Your task to perform on an android device: clear all cookies in the chrome app Image 0: 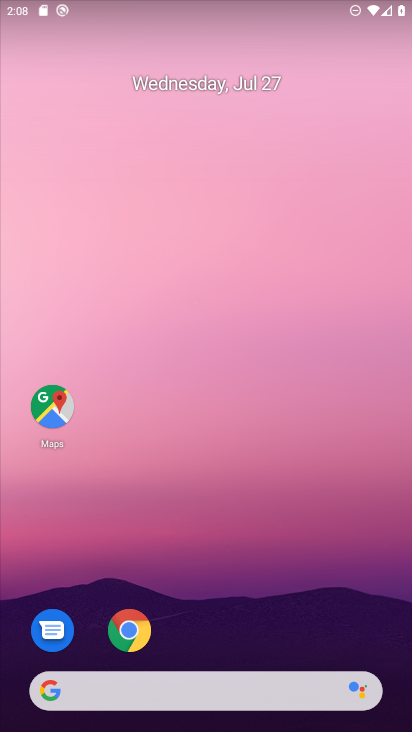
Step 0: click (129, 632)
Your task to perform on an android device: clear all cookies in the chrome app Image 1: 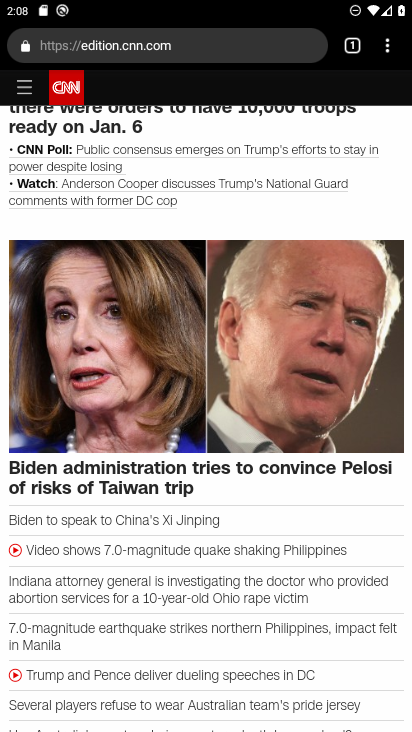
Step 1: click (386, 54)
Your task to perform on an android device: clear all cookies in the chrome app Image 2: 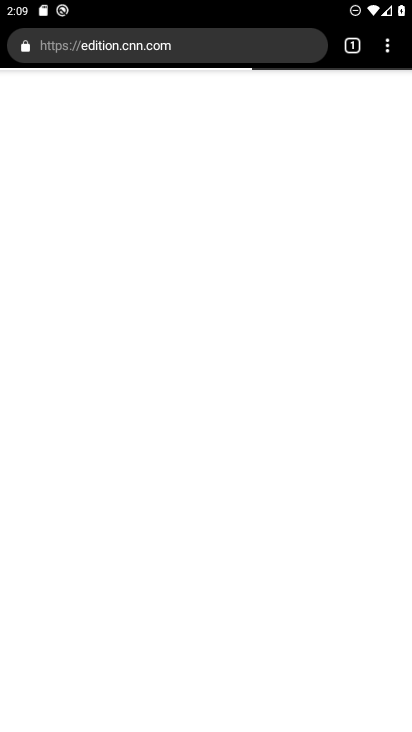
Step 2: click (388, 55)
Your task to perform on an android device: clear all cookies in the chrome app Image 3: 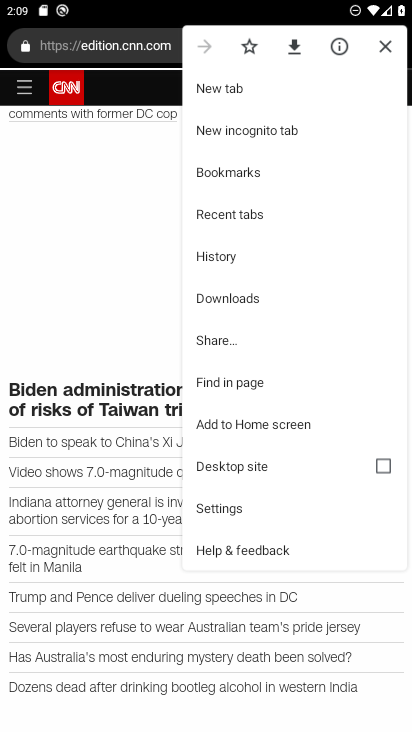
Step 3: click (220, 255)
Your task to perform on an android device: clear all cookies in the chrome app Image 4: 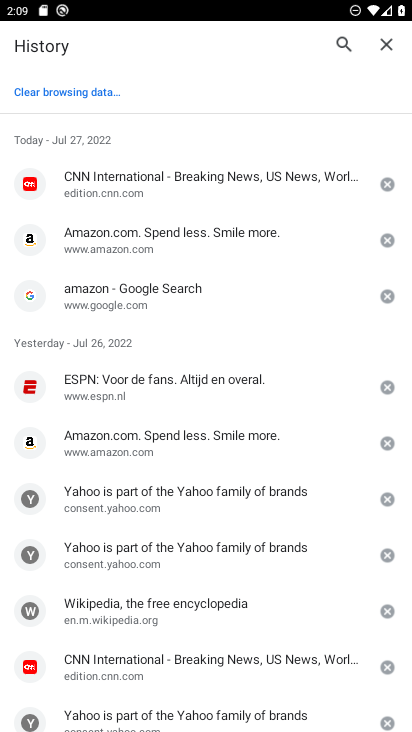
Step 4: click (69, 97)
Your task to perform on an android device: clear all cookies in the chrome app Image 5: 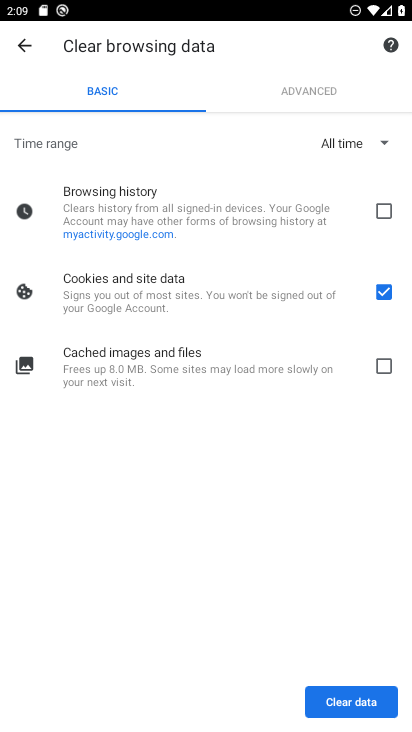
Step 5: click (351, 701)
Your task to perform on an android device: clear all cookies in the chrome app Image 6: 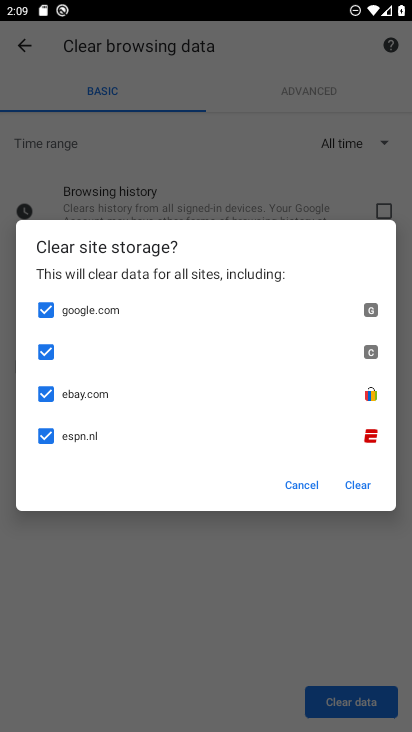
Step 6: click (354, 483)
Your task to perform on an android device: clear all cookies in the chrome app Image 7: 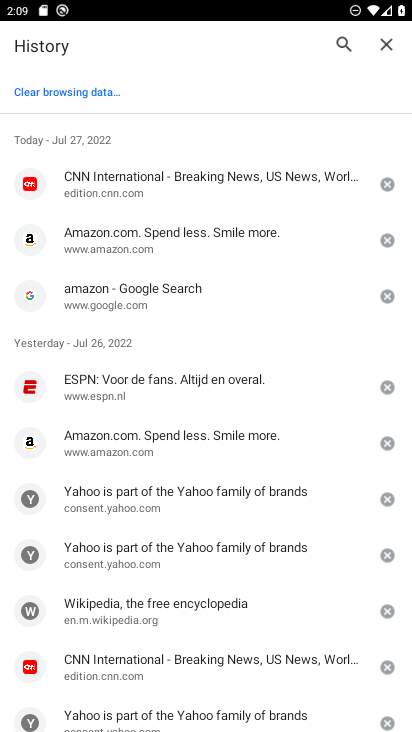
Step 7: task complete